Your task to perform on an android device: check storage Image 0: 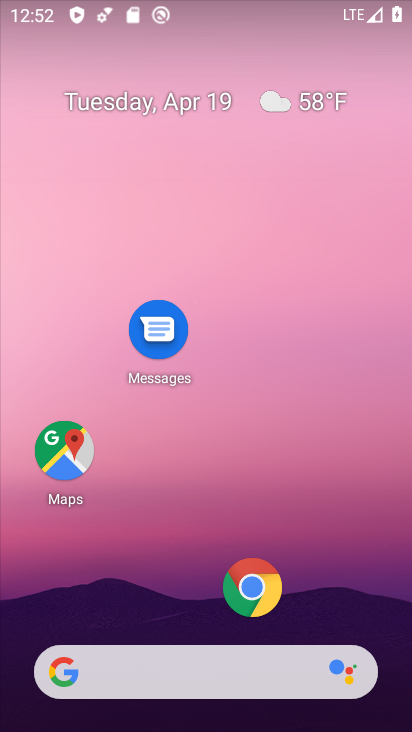
Step 0: drag from (201, 596) to (175, 132)
Your task to perform on an android device: check storage Image 1: 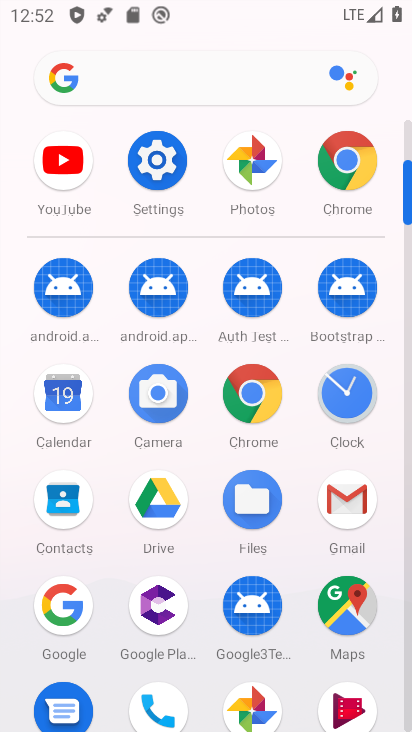
Step 1: click (155, 158)
Your task to perform on an android device: check storage Image 2: 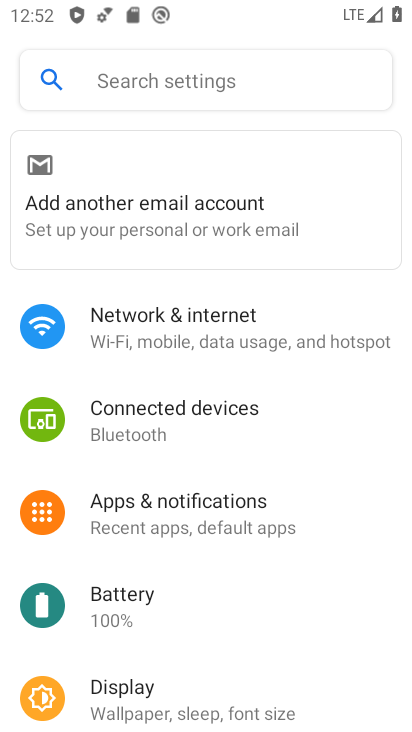
Step 2: drag from (231, 609) to (220, 147)
Your task to perform on an android device: check storage Image 3: 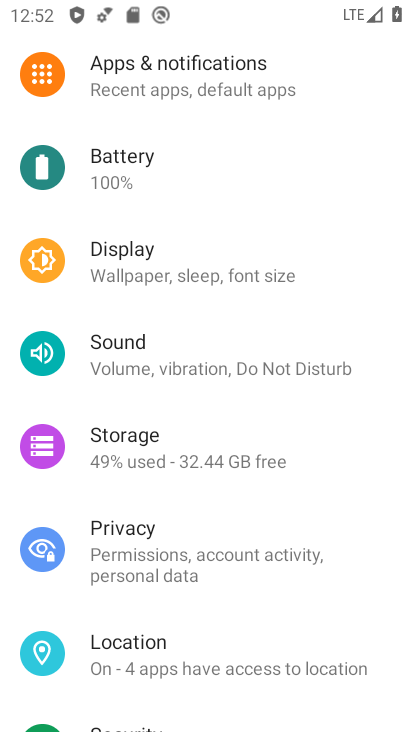
Step 3: click (130, 451)
Your task to perform on an android device: check storage Image 4: 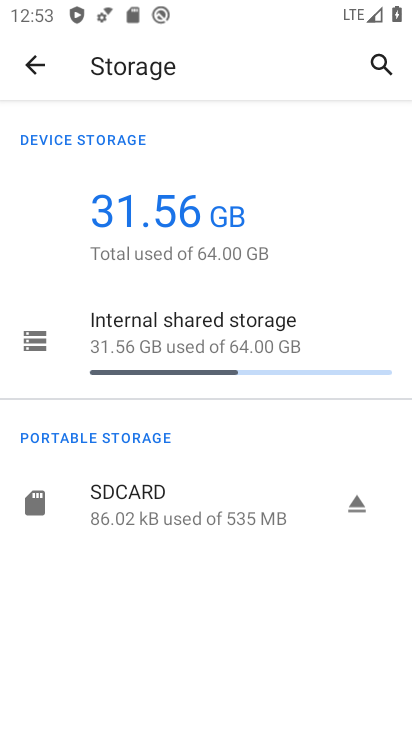
Step 4: task complete